Your task to perform on an android device: Open eBay Image 0: 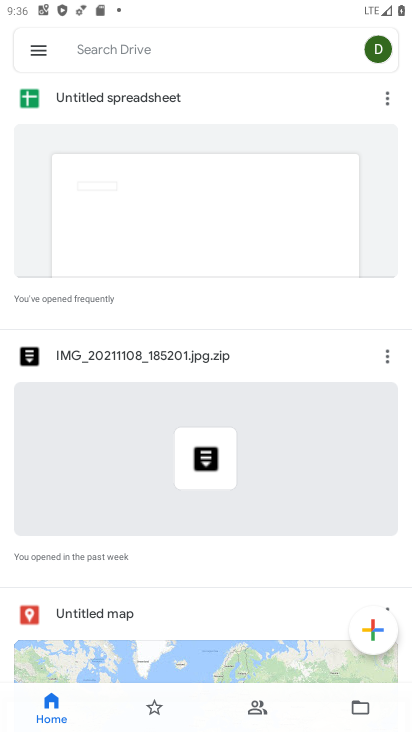
Step 0: press back button
Your task to perform on an android device: Open eBay Image 1: 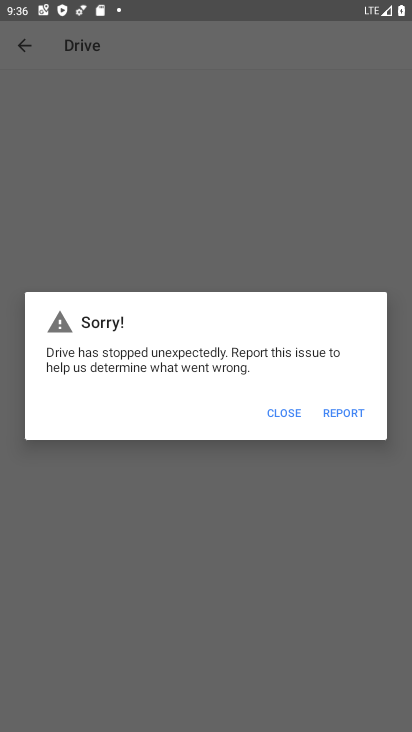
Step 1: press home button
Your task to perform on an android device: Open eBay Image 2: 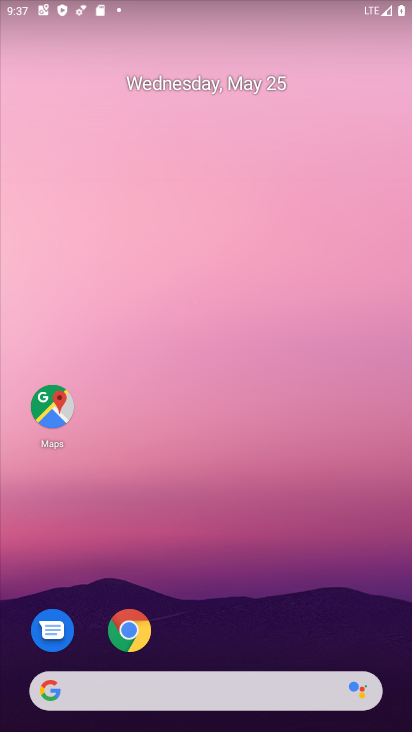
Step 2: click (127, 626)
Your task to perform on an android device: Open eBay Image 3: 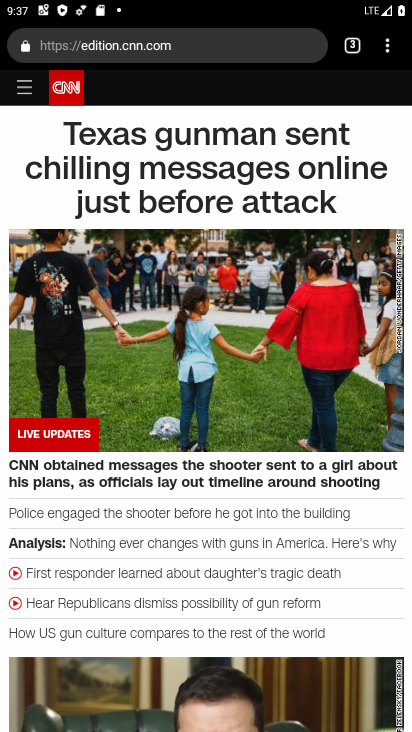
Step 3: click (353, 38)
Your task to perform on an android device: Open eBay Image 4: 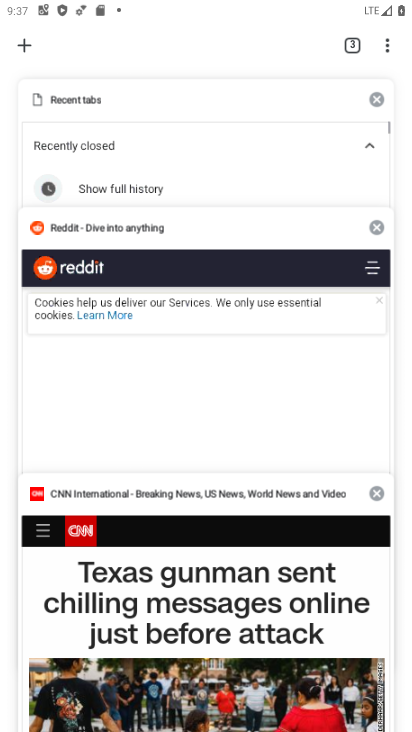
Step 4: click (30, 37)
Your task to perform on an android device: Open eBay Image 5: 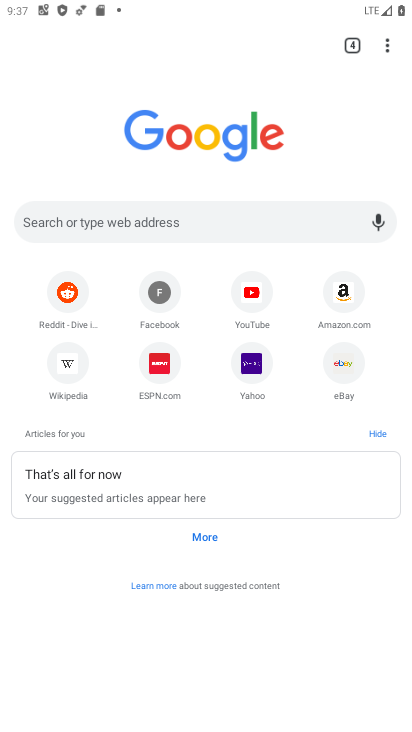
Step 5: click (329, 362)
Your task to perform on an android device: Open eBay Image 6: 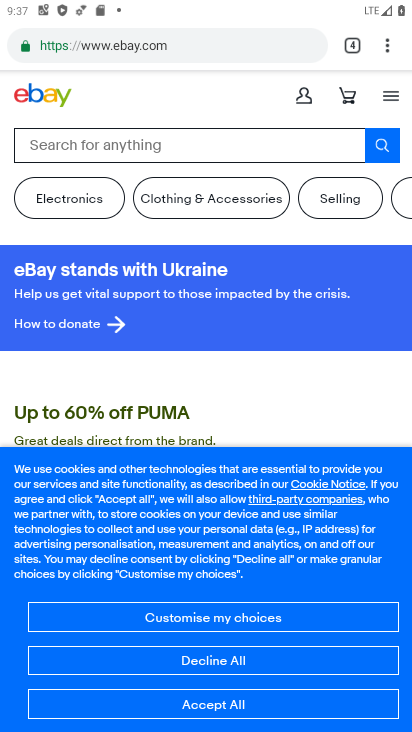
Step 6: task complete